Your task to perform on an android device: Open Chrome and go to the settings page Image 0: 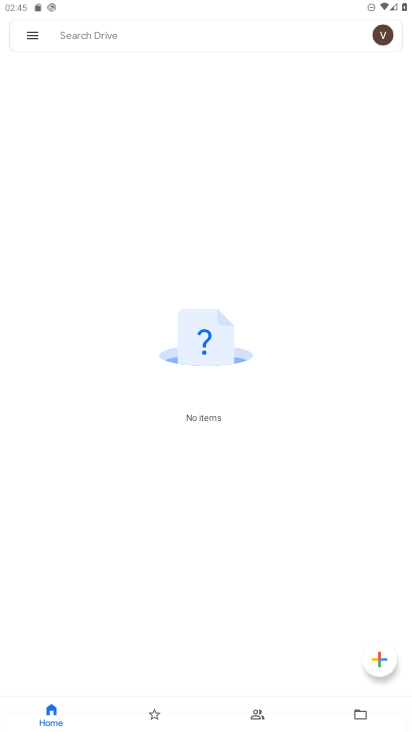
Step 0: press home button
Your task to perform on an android device: Open Chrome and go to the settings page Image 1: 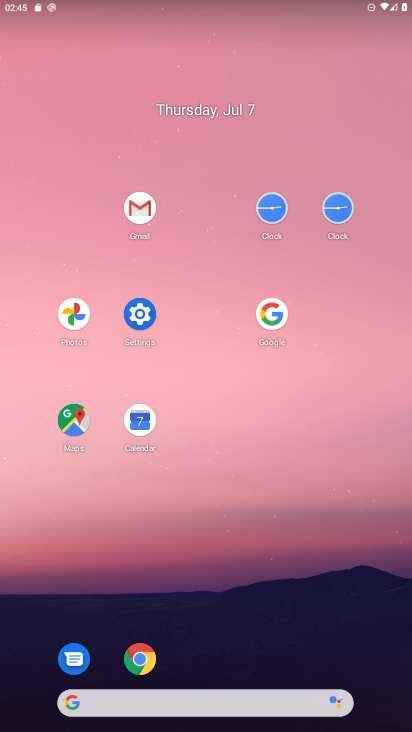
Step 1: click (138, 663)
Your task to perform on an android device: Open Chrome and go to the settings page Image 2: 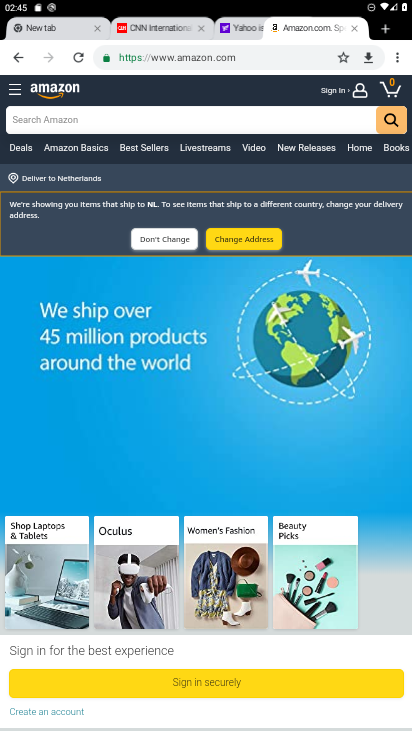
Step 2: click (395, 58)
Your task to perform on an android device: Open Chrome and go to the settings page Image 3: 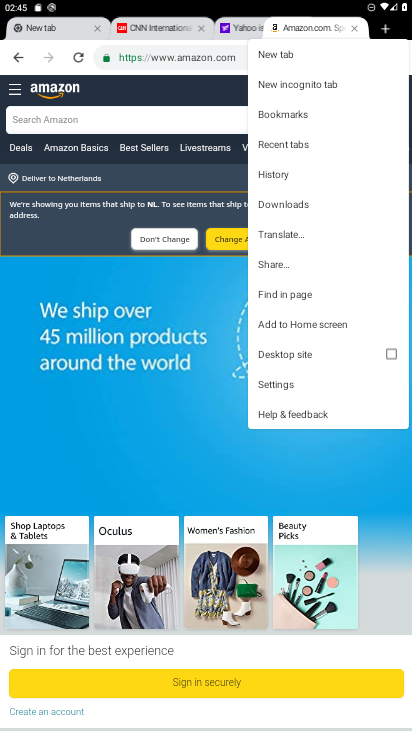
Step 3: click (293, 378)
Your task to perform on an android device: Open Chrome and go to the settings page Image 4: 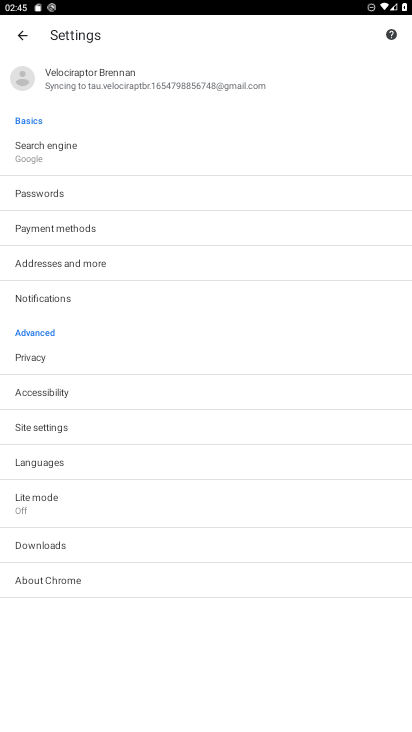
Step 4: task complete